Your task to perform on an android device: change the clock display to analog Image 0: 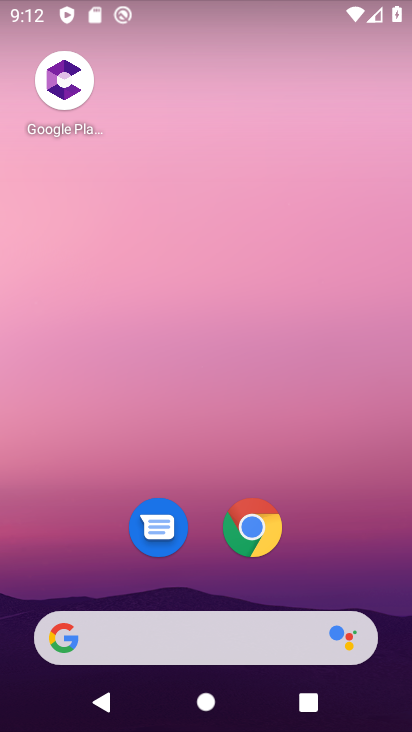
Step 0: drag from (396, 647) to (328, 14)
Your task to perform on an android device: change the clock display to analog Image 1: 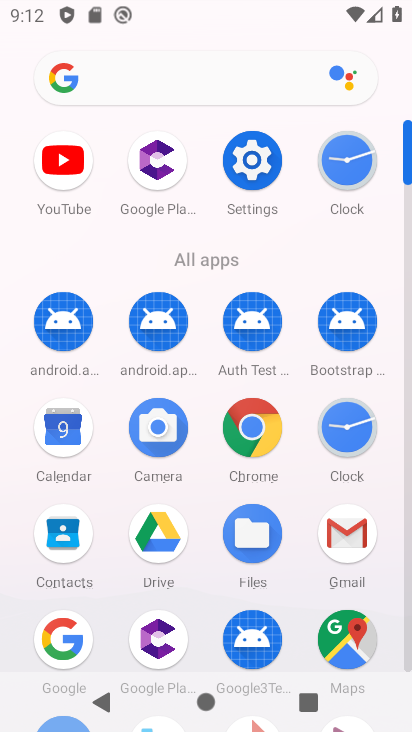
Step 1: click (345, 426)
Your task to perform on an android device: change the clock display to analog Image 2: 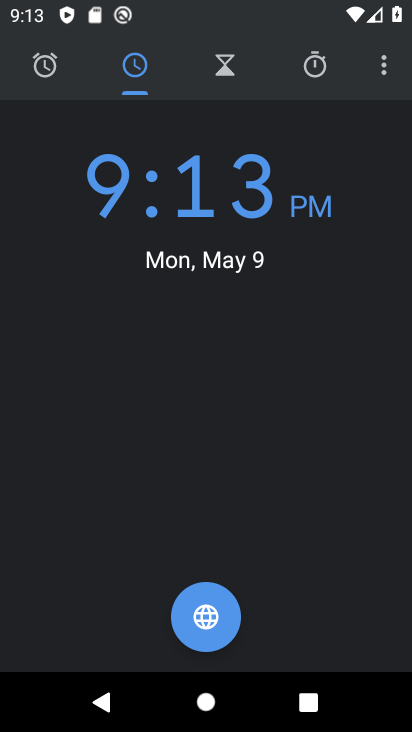
Step 2: click (383, 71)
Your task to perform on an android device: change the clock display to analog Image 3: 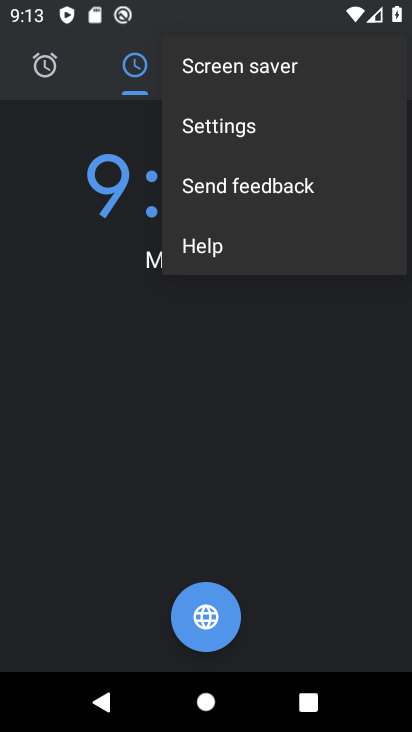
Step 3: click (222, 123)
Your task to perform on an android device: change the clock display to analog Image 4: 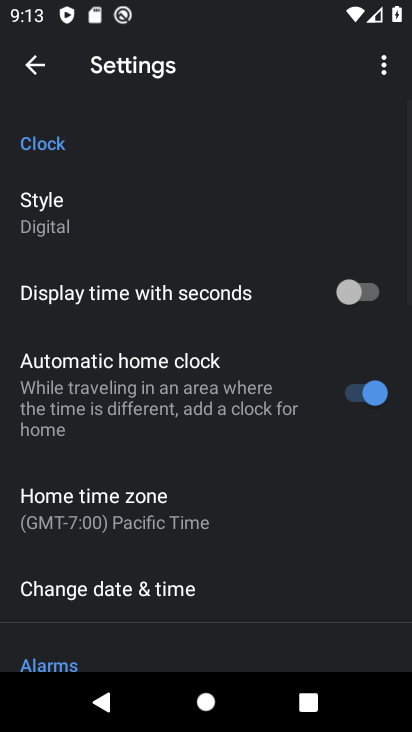
Step 4: click (46, 213)
Your task to perform on an android device: change the clock display to analog Image 5: 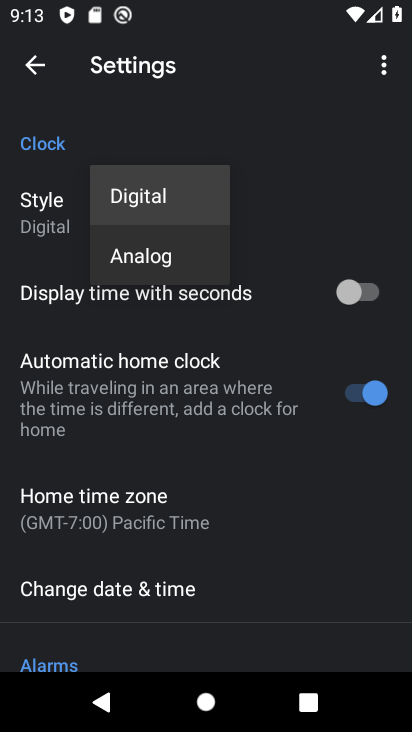
Step 5: click (126, 253)
Your task to perform on an android device: change the clock display to analog Image 6: 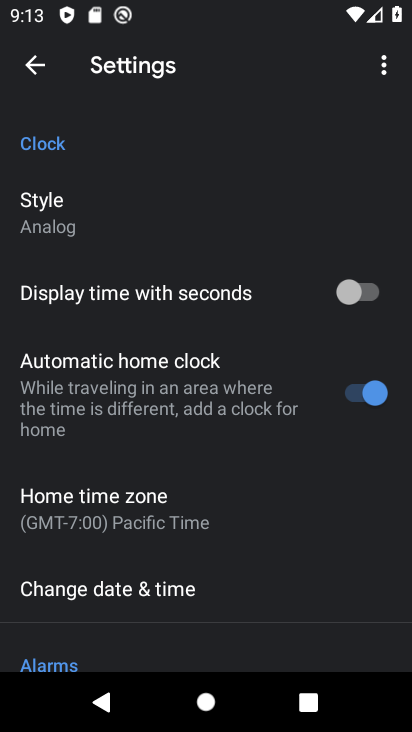
Step 6: task complete